Your task to perform on an android device: move a message to another label in the gmail app Image 0: 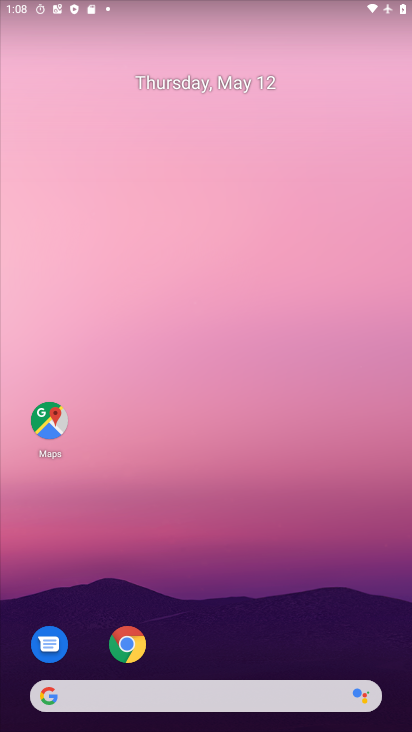
Step 0: drag from (230, 613) to (198, 79)
Your task to perform on an android device: move a message to another label in the gmail app Image 1: 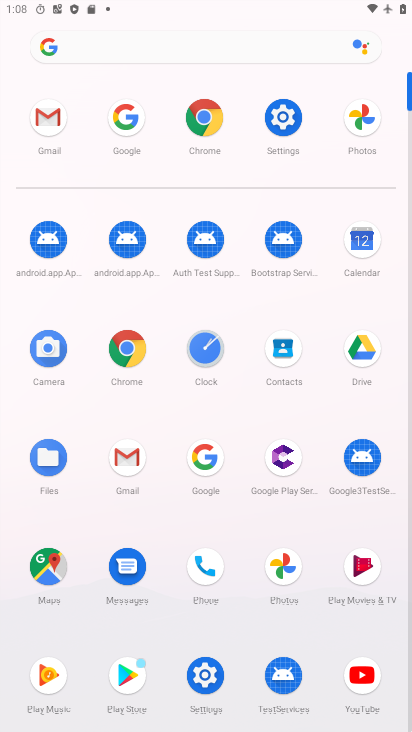
Step 1: click (132, 460)
Your task to perform on an android device: move a message to another label in the gmail app Image 2: 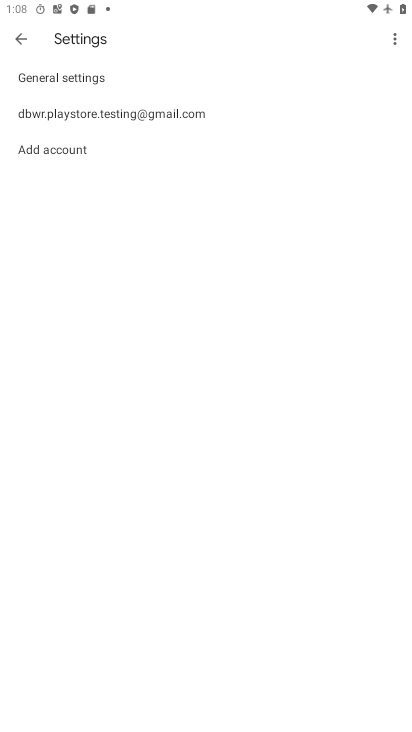
Step 2: click (14, 45)
Your task to perform on an android device: move a message to another label in the gmail app Image 3: 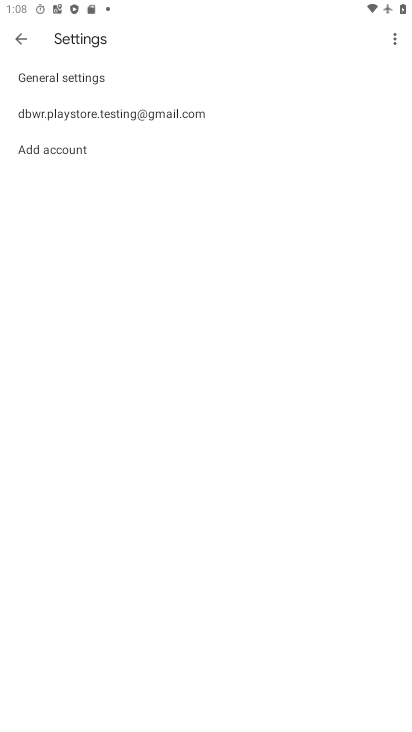
Step 3: click (18, 42)
Your task to perform on an android device: move a message to another label in the gmail app Image 4: 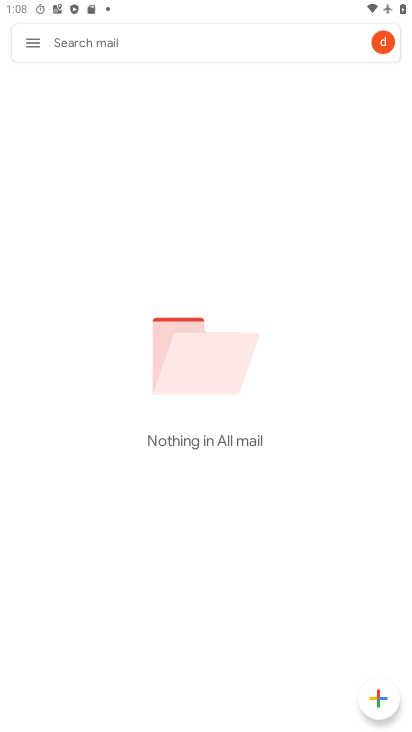
Step 4: click (34, 40)
Your task to perform on an android device: move a message to another label in the gmail app Image 5: 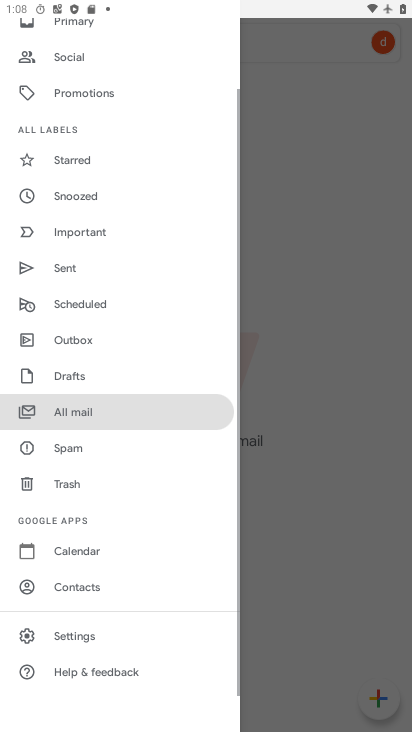
Step 5: click (108, 408)
Your task to perform on an android device: move a message to another label in the gmail app Image 6: 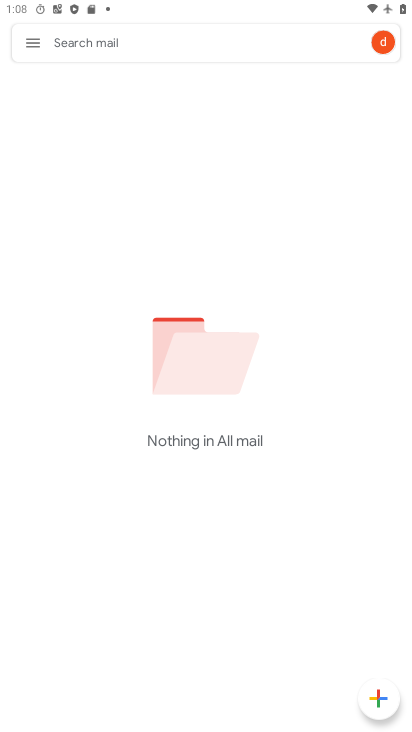
Step 6: task complete